Your task to perform on an android device: move a message to another label in the gmail app Image 0: 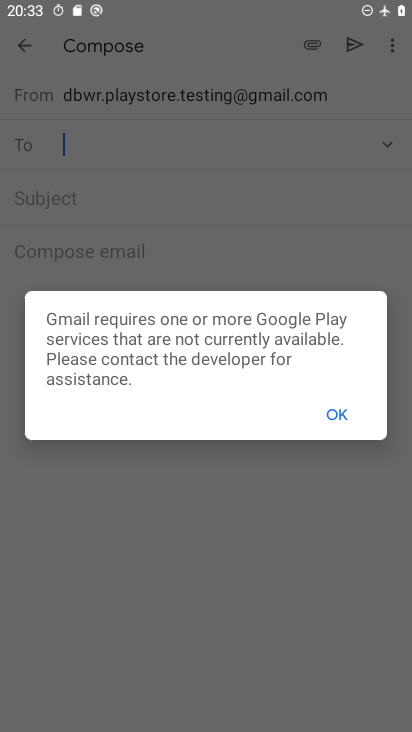
Step 0: press home button
Your task to perform on an android device: move a message to another label in the gmail app Image 1: 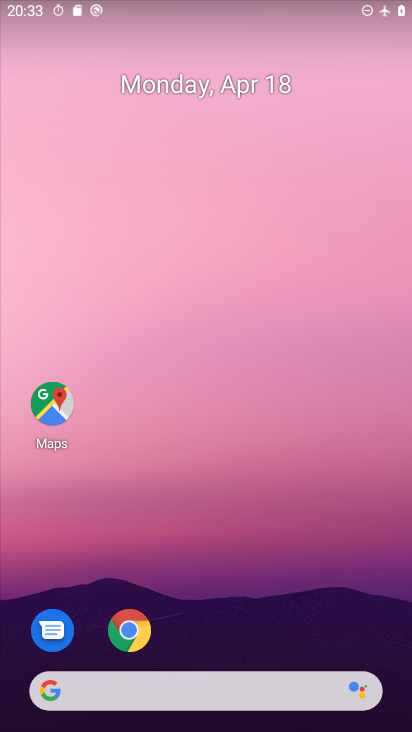
Step 1: drag from (217, 641) to (274, 174)
Your task to perform on an android device: move a message to another label in the gmail app Image 2: 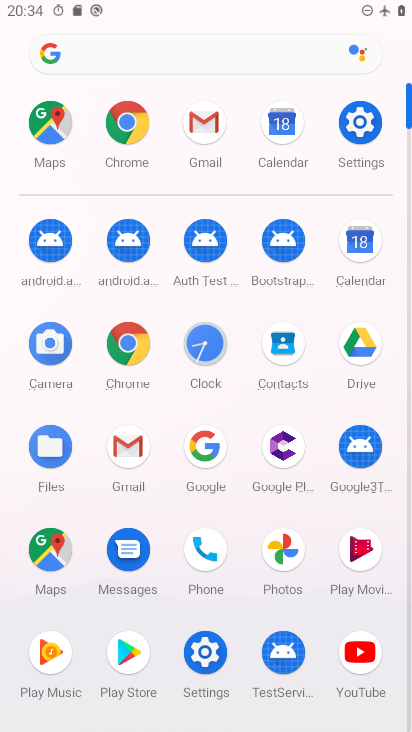
Step 2: click (126, 440)
Your task to perform on an android device: move a message to another label in the gmail app Image 3: 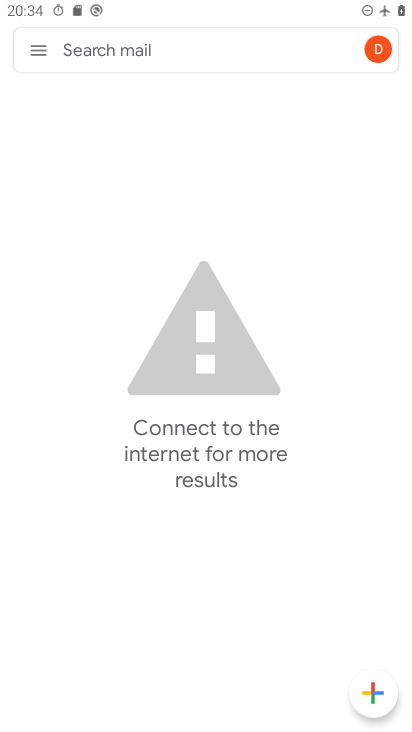
Step 3: click (34, 47)
Your task to perform on an android device: move a message to another label in the gmail app Image 4: 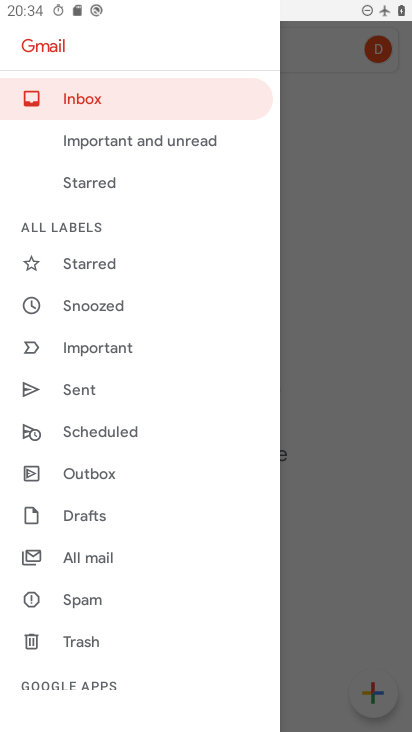
Step 4: click (95, 554)
Your task to perform on an android device: move a message to another label in the gmail app Image 5: 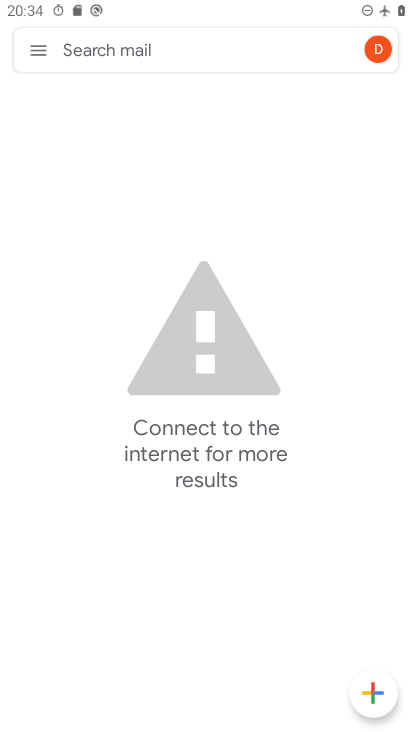
Step 5: task complete